Your task to perform on an android device: turn off location history Image 0: 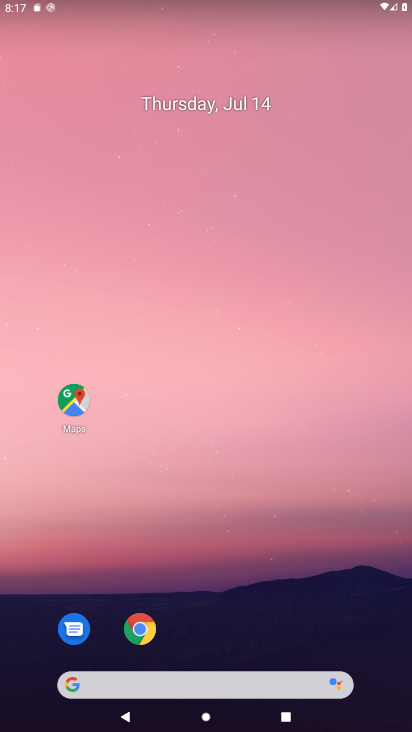
Step 0: drag from (217, 628) to (203, 25)
Your task to perform on an android device: turn off location history Image 1: 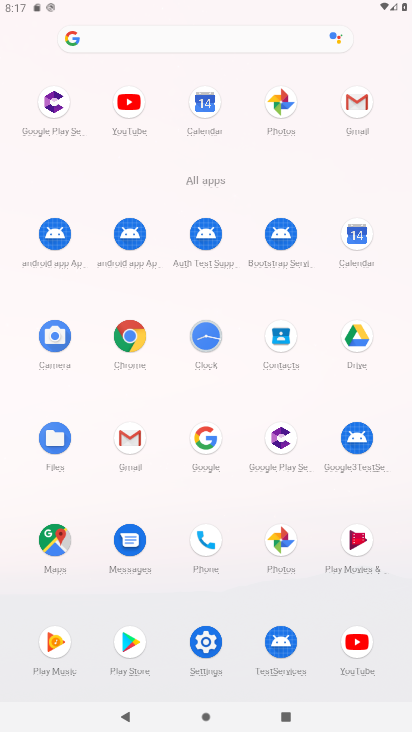
Step 1: click (204, 653)
Your task to perform on an android device: turn off location history Image 2: 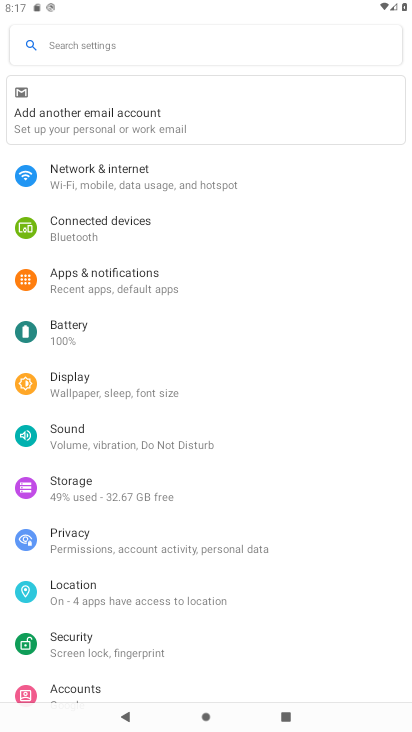
Step 2: click (89, 604)
Your task to perform on an android device: turn off location history Image 3: 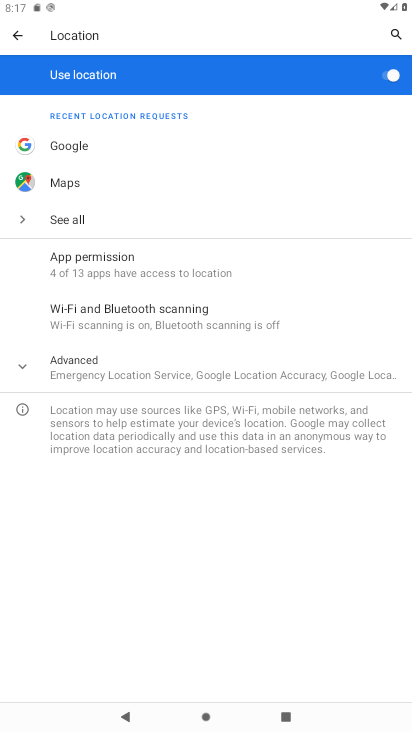
Step 3: click (102, 359)
Your task to perform on an android device: turn off location history Image 4: 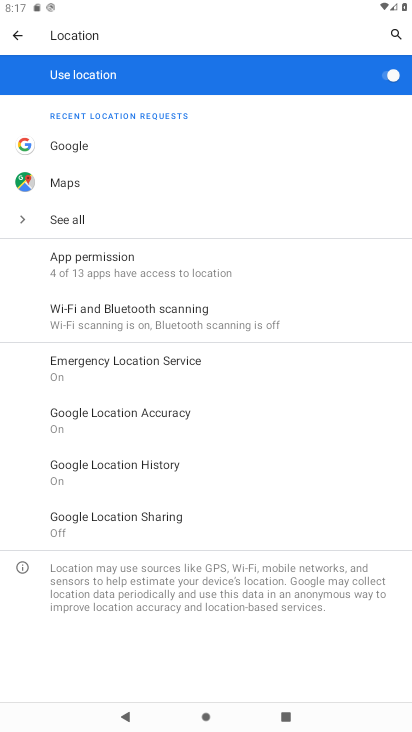
Step 4: click (139, 466)
Your task to perform on an android device: turn off location history Image 5: 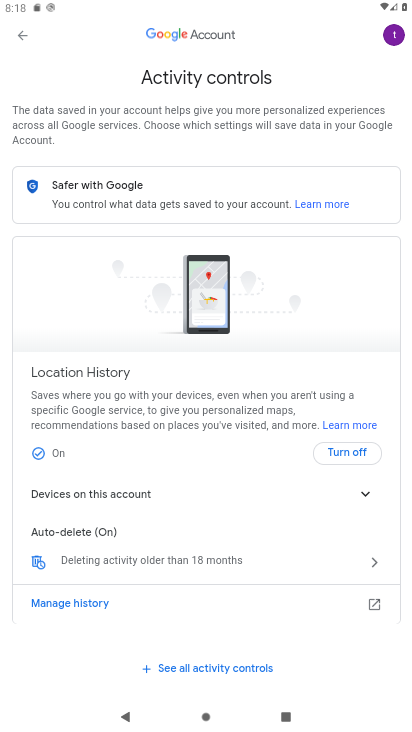
Step 5: click (350, 452)
Your task to perform on an android device: turn off location history Image 6: 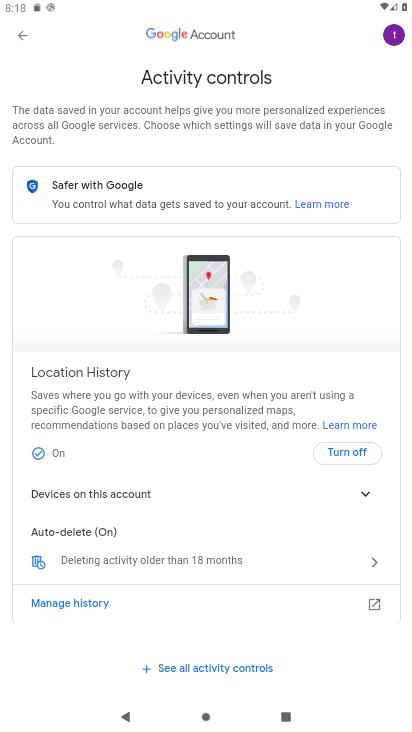
Step 6: click (333, 452)
Your task to perform on an android device: turn off location history Image 7: 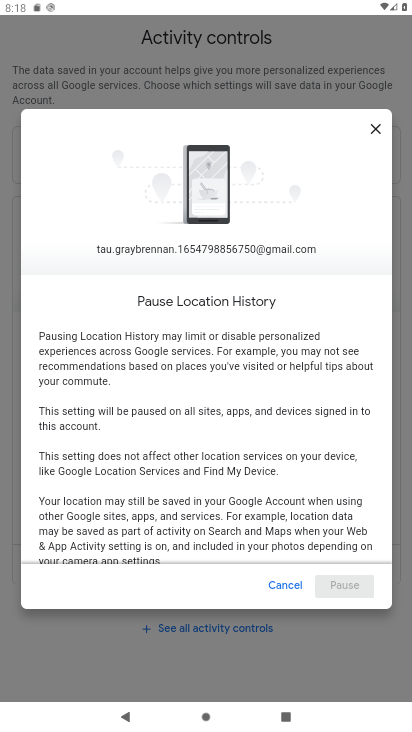
Step 7: drag from (284, 558) to (296, 76)
Your task to perform on an android device: turn off location history Image 8: 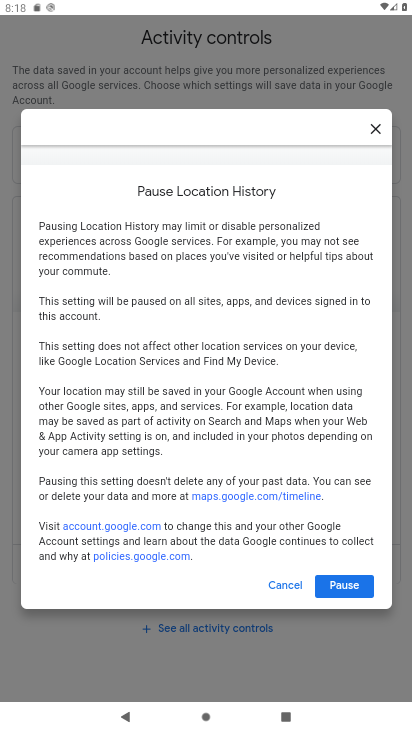
Step 8: click (356, 580)
Your task to perform on an android device: turn off location history Image 9: 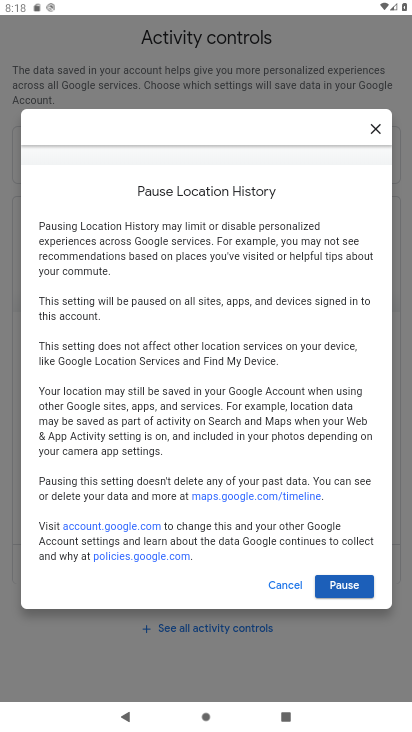
Step 9: click (350, 581)
Your task to perform on an android device: turn off location history Image 10: 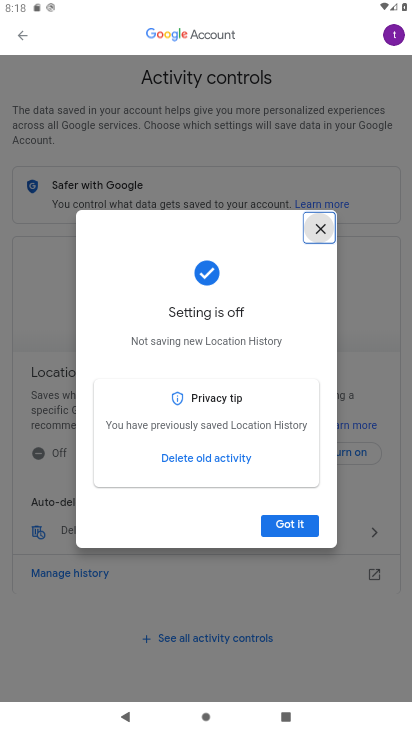
Step 10: click (287, 524)
Your task to perform on an android device: turn off location history Image 11: 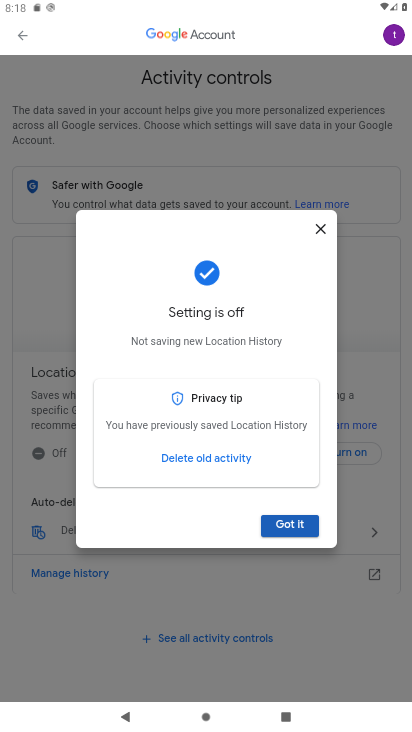
Step 11: click (277, 526)
Your task to perform on an android device: turn off location history Image 12: 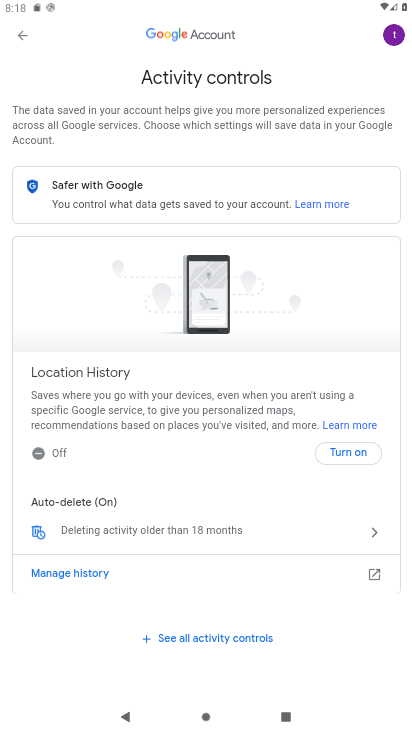
Step 12: task complete